Your task to perform on an android device: Go to privacy settings Image 0: 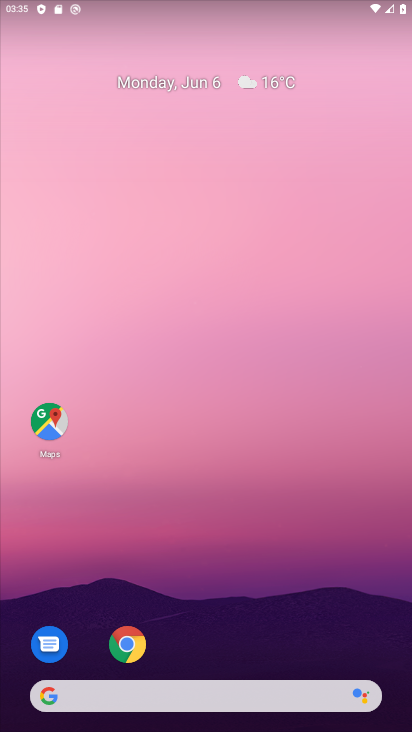
Step 0: click (128, 645)
Your task to perform on an android device: Go to privacy settings Image 1: 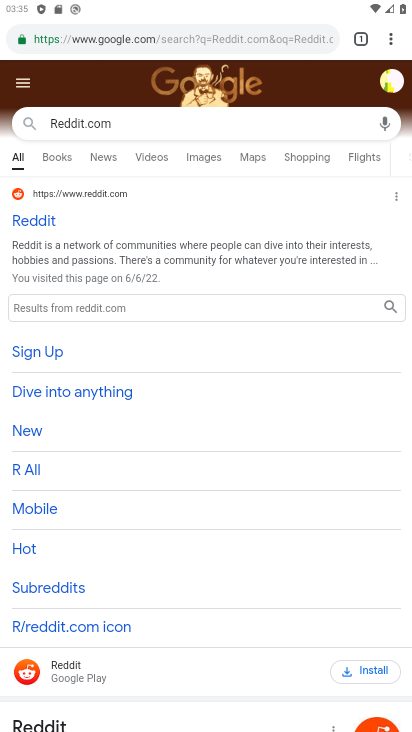
Step 1: click (393, 34)
Your task to perform on an android device: Go to privacy settings Image 2: 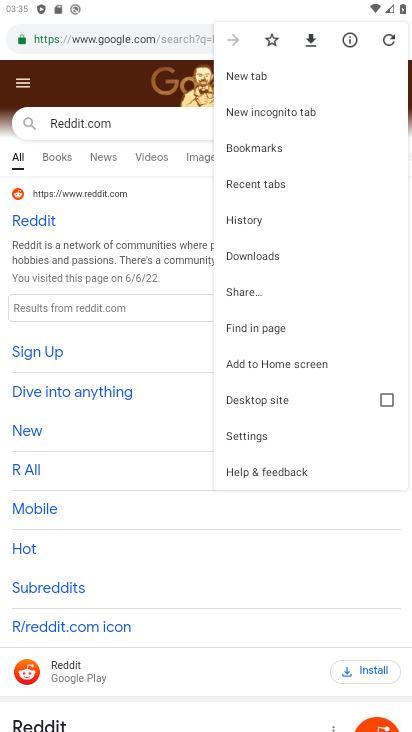
Step 2: click (244, 430)
Your task to perform on an android device: Go to privacy settings Image 3: 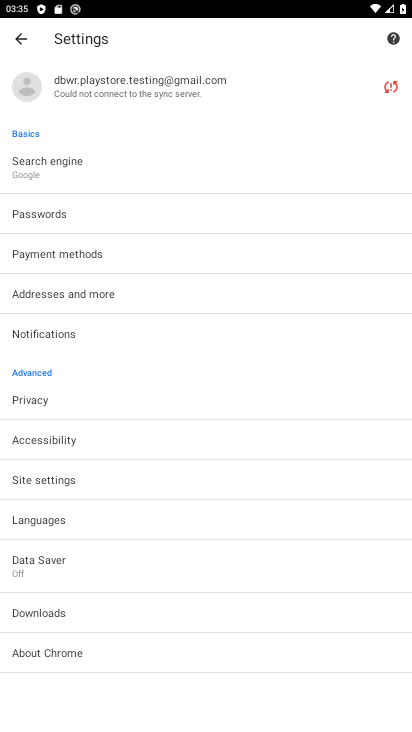
Step 3: click (53, 406)
Your task to perform on an android device: Go to privacy settings Image 4: 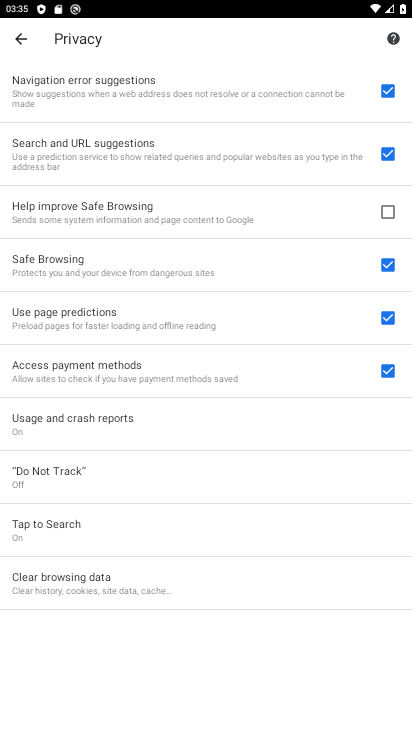
Step 4: task complete